Your task to perform on an android device: toggle priority inbox in the gmail app Image 0: 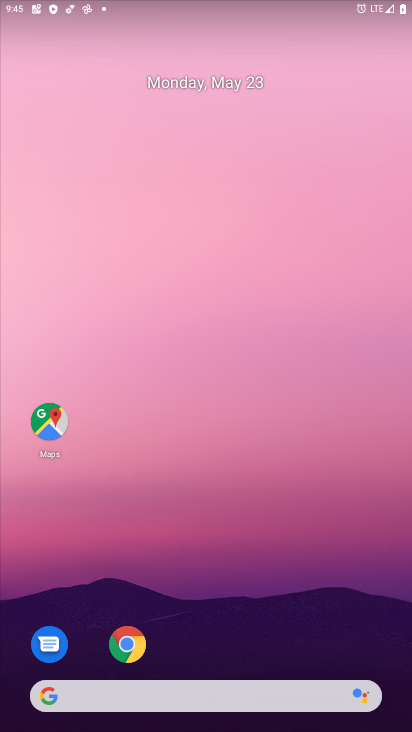
Step 0: drag from (184, 729) to (195, 0)
Your task to perform on an android device: toggle priority inbox in the gmail app Image 1: 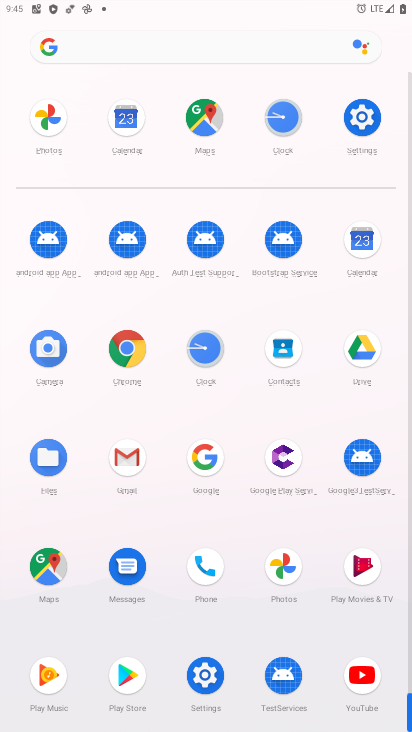
Step 1: click (128, 461)
Your task to perform on an android device: toggle priority inbox in the gmail app Image 2: 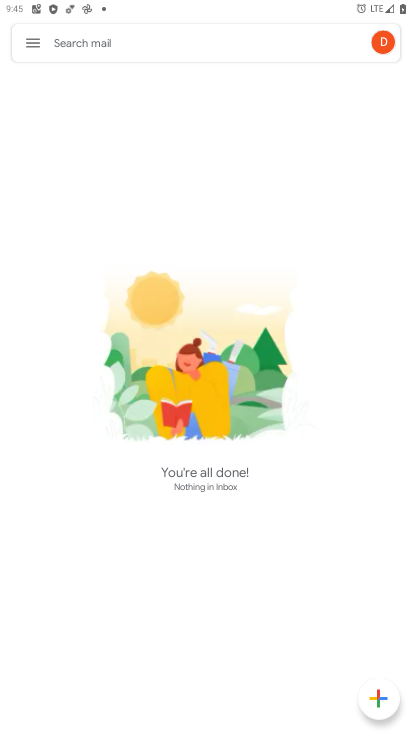
Step 2: click (28, 20)
Your task to perform on an android device: toggle priority inbox in the gmail app Image 3: 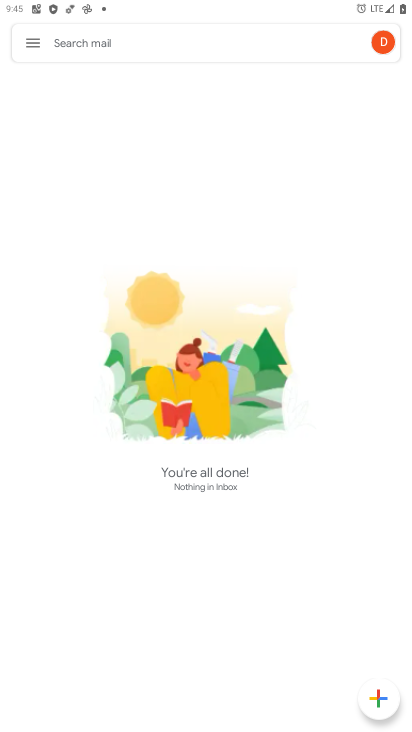
Step 3: click (34, 44)
Your task to perform on an android device: toggle priority inbox in the gmail app Image 4: 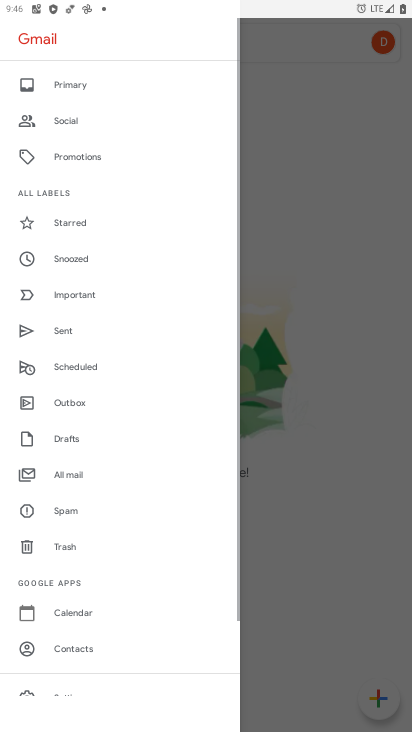
Step 4: drag from (139, 685) to (143, 157)
Your task to perform on an android device: toggle priority inbox in the gmail app Image 5: 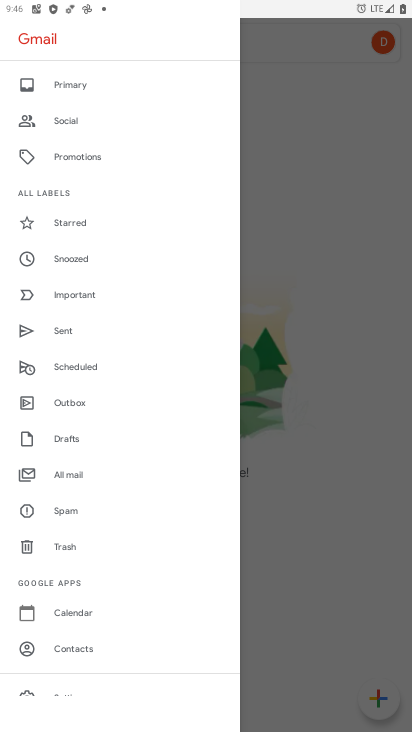
Step 5: drag from (107, 625) to (130, 83)
Your task to perform on an android device: toggle priority inbox in the gmail app Image 6: 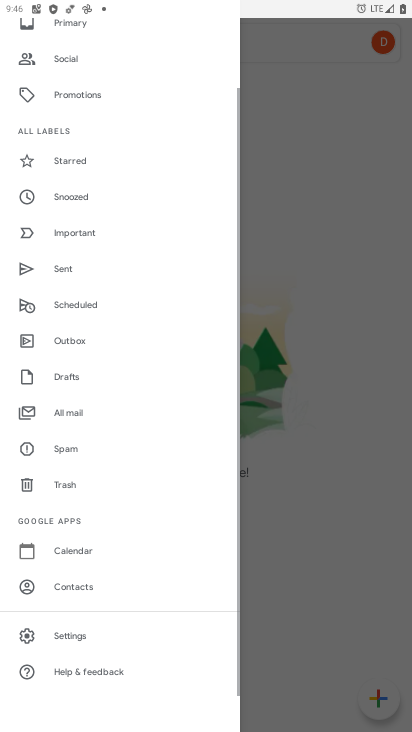
Step 6: click (82, 638)
Your task to perform on an android device: toggle priority inbox in the gmail app Image 7: 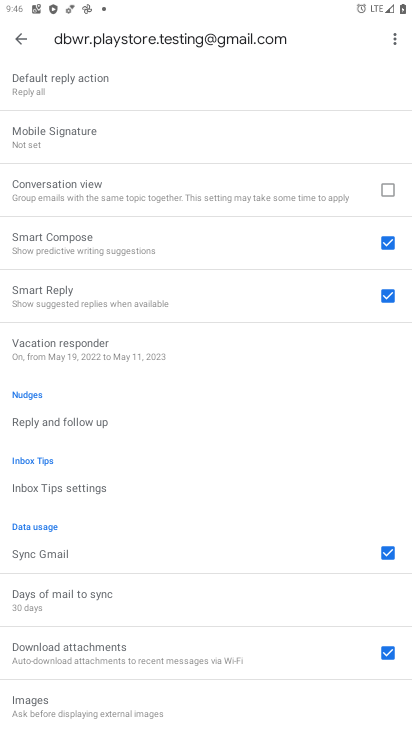
Step 7: drag from (193, 115) to (192, 712)
Your task to perform on an android device: toggle priority inbox in the gmail app Image 8: 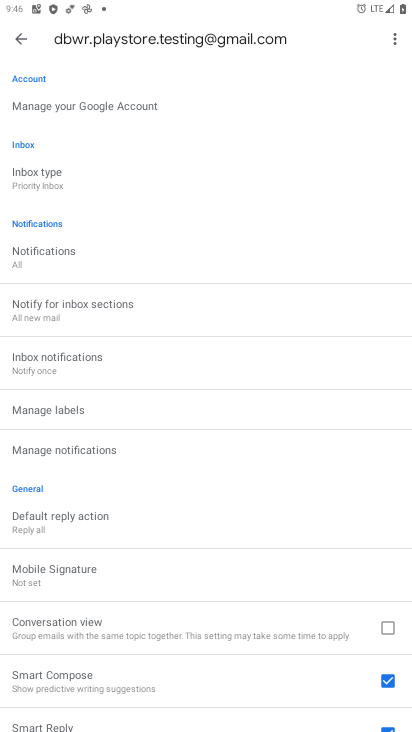
Step 8: click (81, 179)
Your task to perform on an android device: toggle priority inbox in the gmail app Image 9: 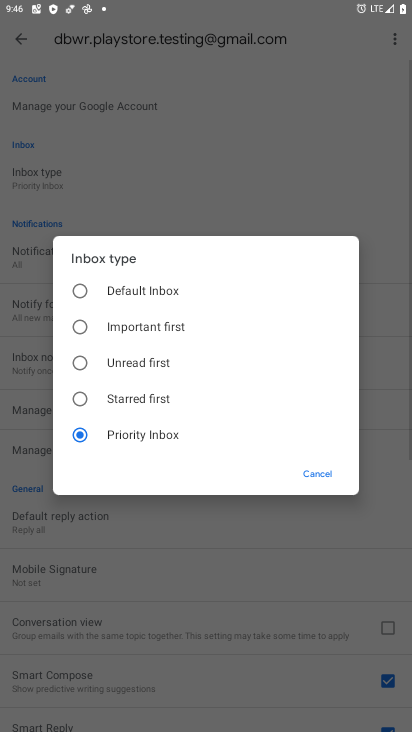
Step 9: click (143, 285)
Your task to perform on an android device: toggle priority inbox in the gmail app Image 10: 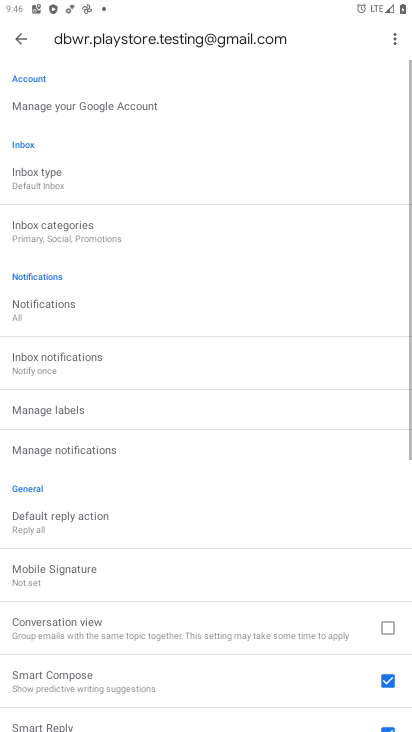
Step 10: task complete